Your task to perform on an android device: star an email in the gmail app Image 0: 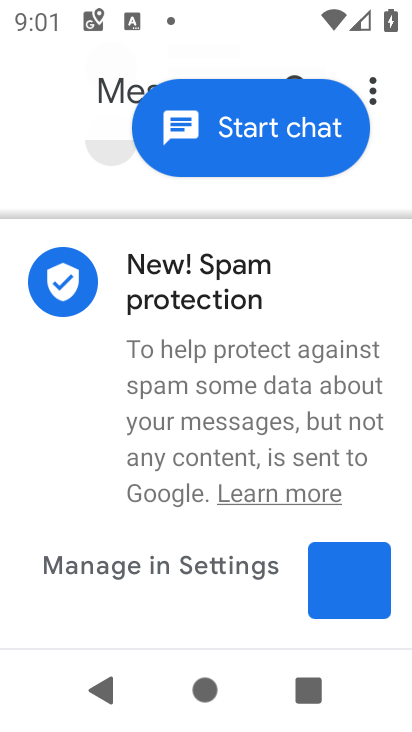
Step 0: press home button
Your task to perform on an android device: star an email in the gmail app Image 1: 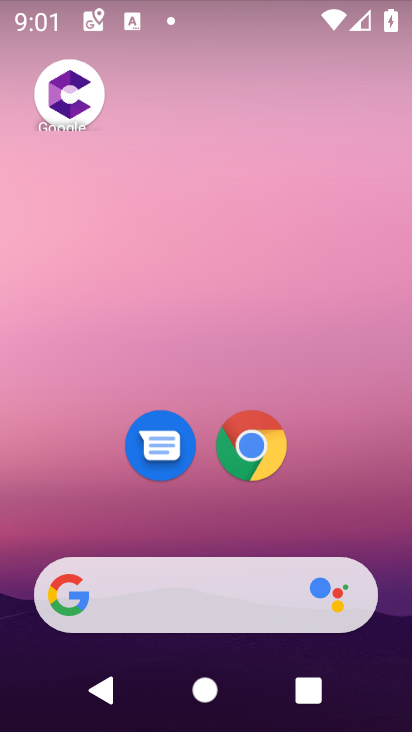
Step 1: drag from (321, 537) to (306, 93)
Your task to perform on an android device: star an email in the gmail app Image 2: 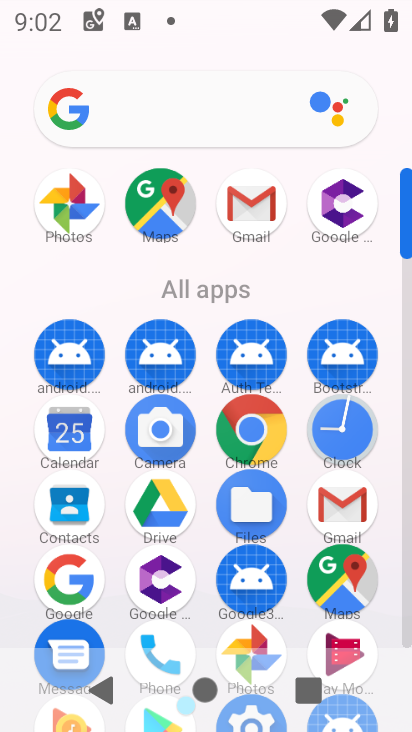
Step 2: click (258, 201)
Your task to perform on an android device: star an email in the gmail app Image 3: 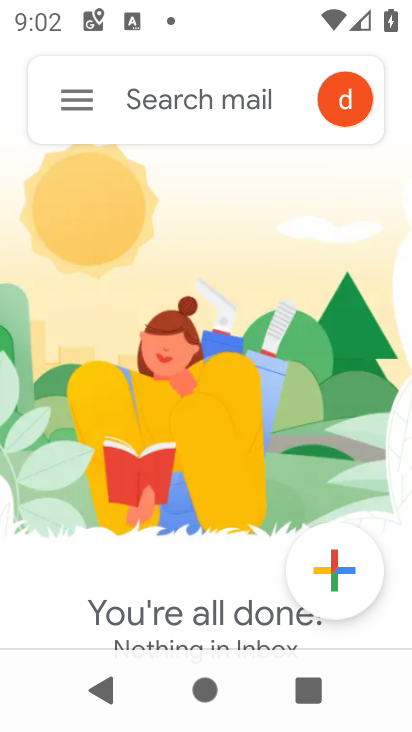
Step 3: task complete